Your task to perform on an android device: Open Youtube and go to the subscriptions tab Image 0: 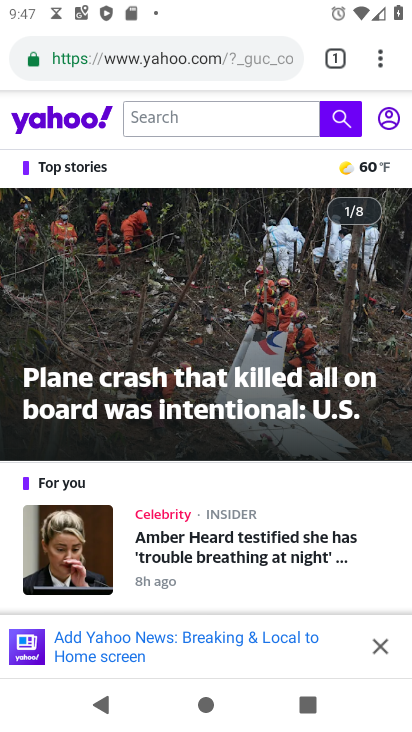
Step 0: press home button
Your task to perform on an android device: Open Youtube and go to the subscriptions tab Image 1: 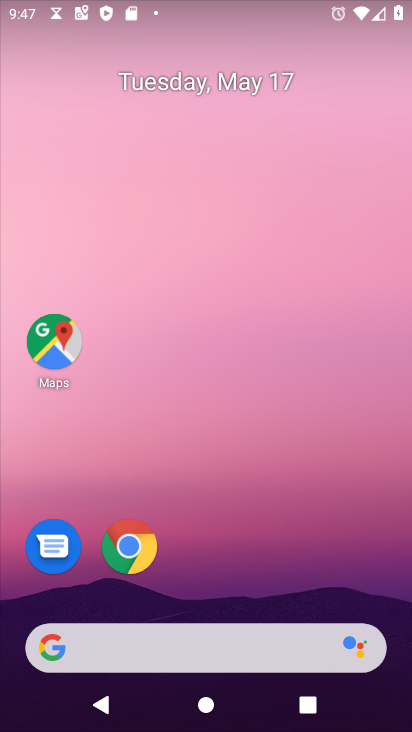
Step 1: drag from (259, 590) to (315, 50)
Your task to perform on an android device: Open Youtube and go to the subscriptions tab Image 2: 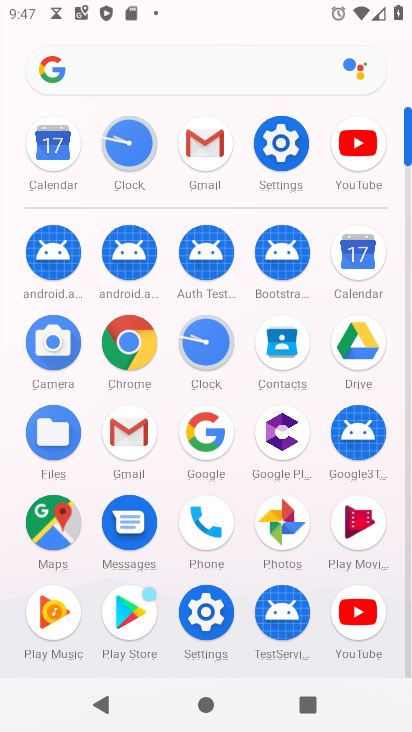
Step 2: click (349, 615)
Your task to perform on an android device: Open Youtube and go to the subscriptions tab Image 3: 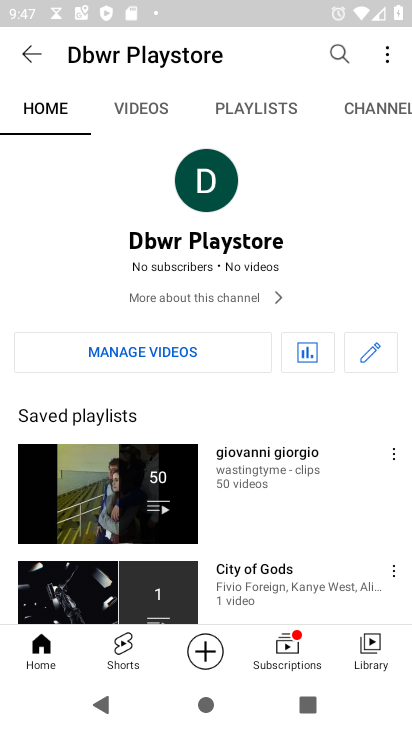
Step 3: click (279, 650)
Your task to perform on an android device: Open Youtube and go to the subscriptions tab Image 4: 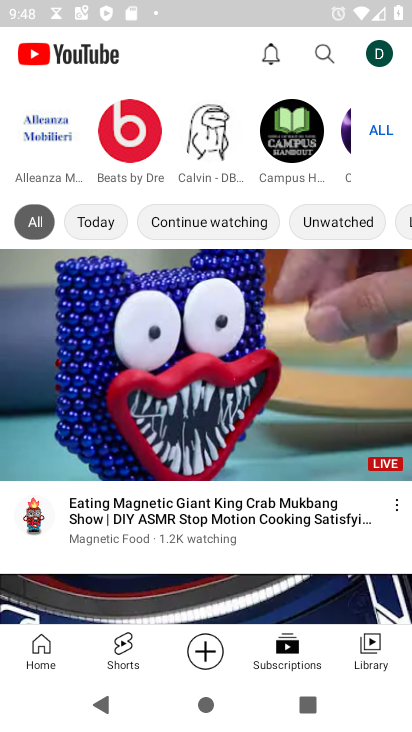
Step 4: task complete